Your task to perform on an android device: Open calendar and show me the second week of next month Image 0: 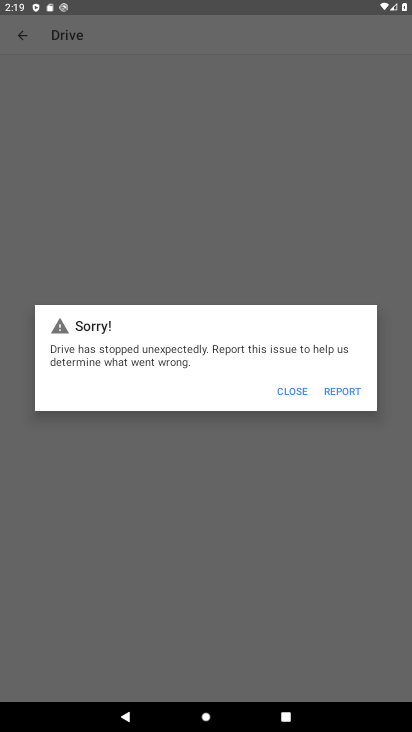
Step 0: press home button
Your task to perform on an android device: Open calendar and show me the second week of next month Image 1: 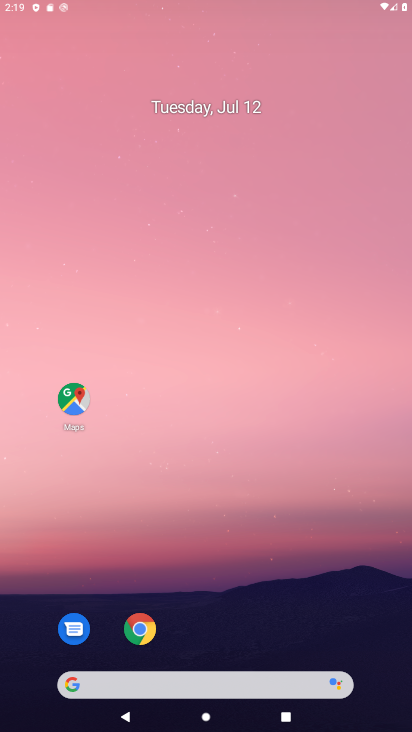
Step 1: drag from (282, 582) to (314, 36)
Your task to perform on an android device: Open calendar and show me the second week of next month Image 2: 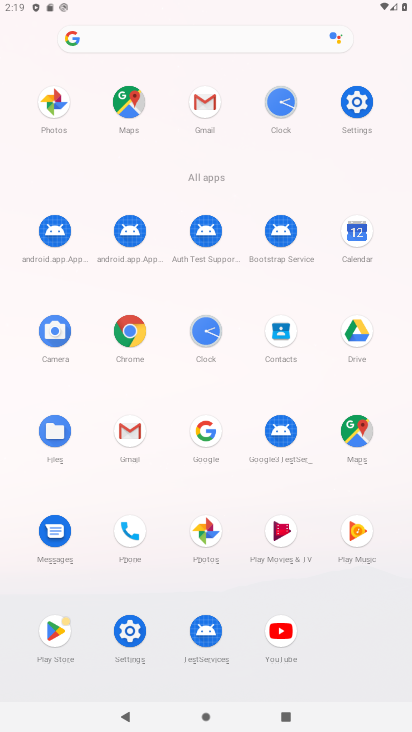
Step 2: click (360, 233)
Your task to perform on an android device: Open calendar and show me the second week of next month Image 3: 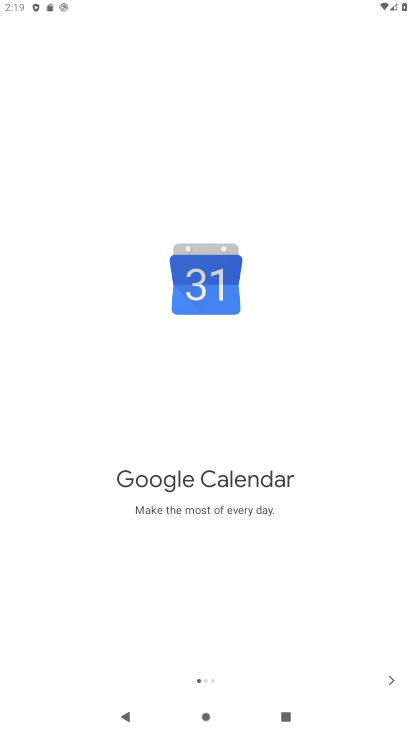
Step 3: click (388, 677)
Your task to perform on an android device: Open calendar and show me the second week of next month Image 4: 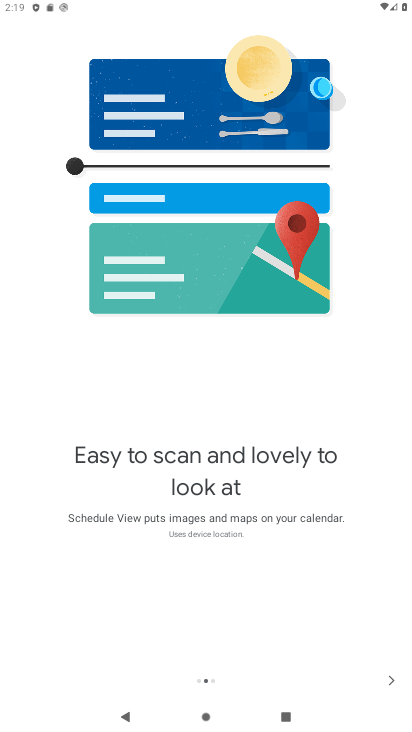
Step 4: click (388, 677)
Your task to perform on an android device: Open calendar and show me the second week of next month Image 5: 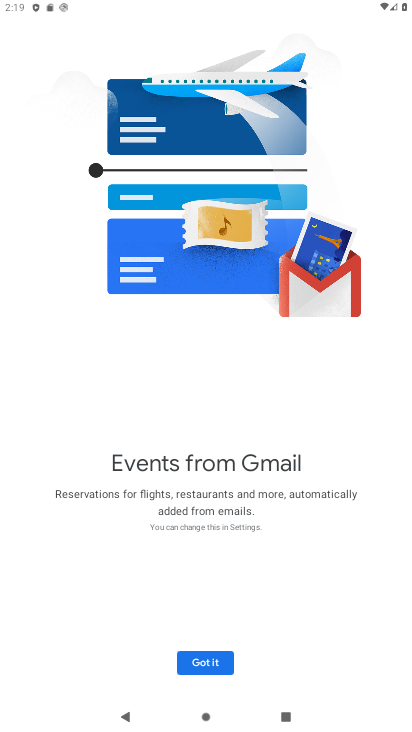
Step 5: click (214, 663)
Your task to perform on an android device: Open calendar and show me the second week of next month Image 6: 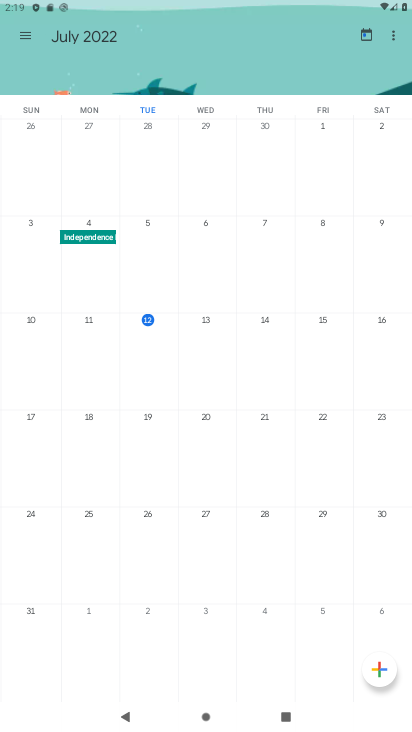
Step 6: drag from (323, 315) to (379, 477)
Your task to perform on an android device: Open calendar and show me the second week of next month Image 7: 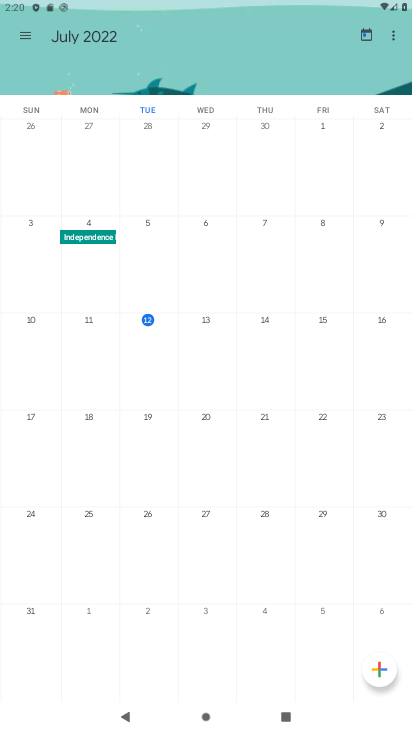
Step 7: drag from (325, 275) to (12, 314)
Your task to perform on an android device: Open calendar and show me the second week of next month Image 8: 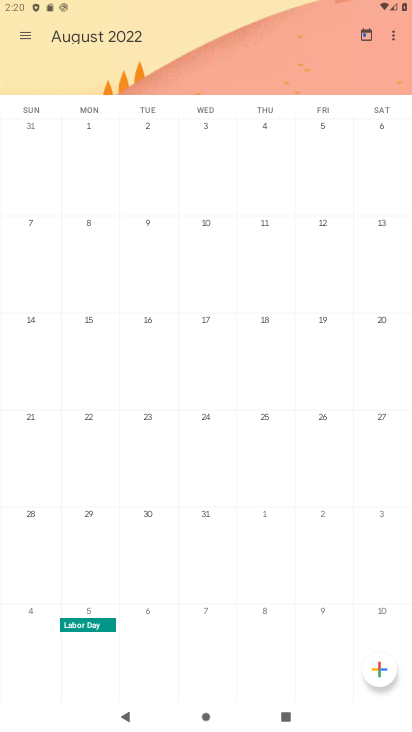
Step 8: click (203, 224)
Your task to perform on an android device: Open calendar and show me the second week of next month Image 9: 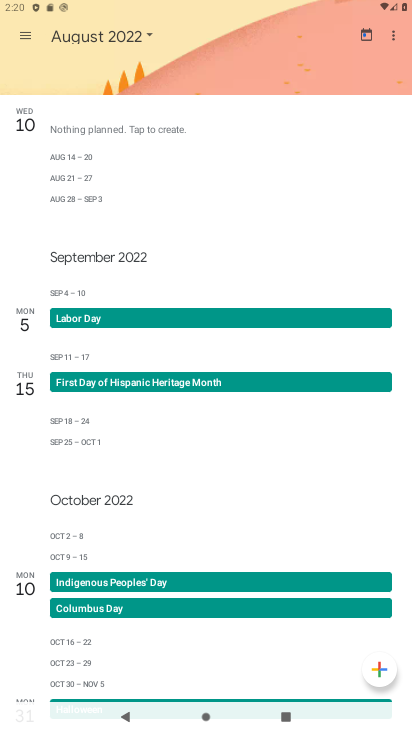
Step 9: task complete